Your task to perform on an android device: Open sound settings Image 0: 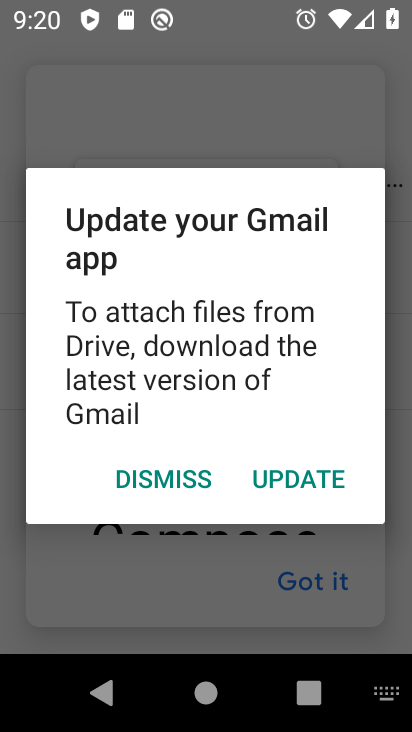
Step 0: click (149, 482)
Your task to perform on an android device: Open sound settings Image 1: 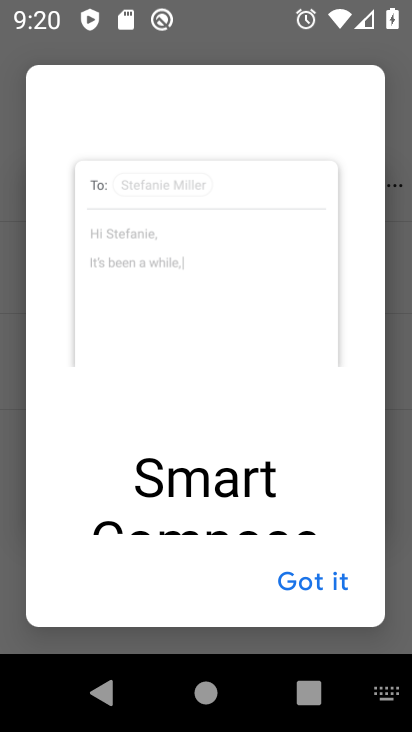
Step 1: press back button
Your task to perform on an android device: Open sound settings Image 2: 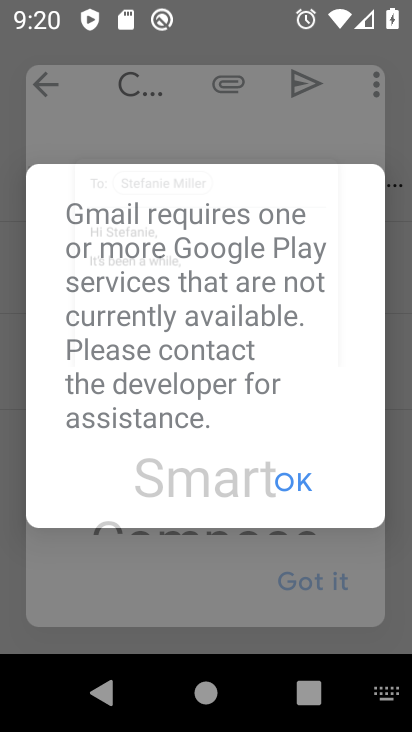
Step 2: press back button
Your task to perform on an android device: Open sound settings Image 3: 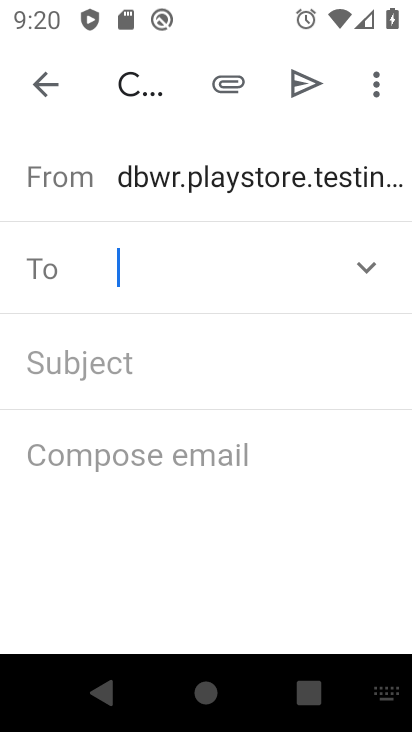
Step 3: press back button
Your task to perform on an android device: Open sound settings Image 4: 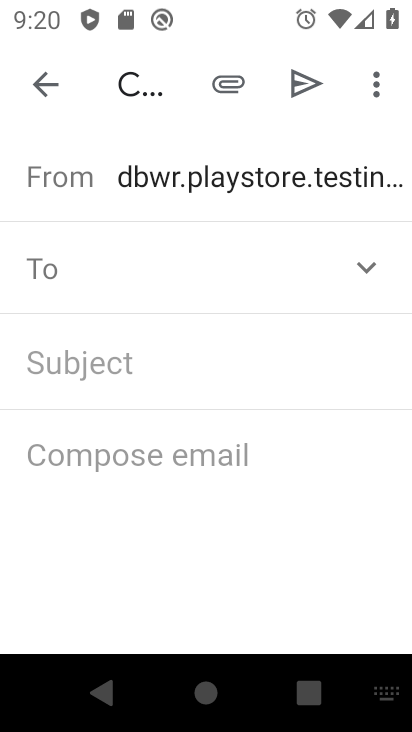
Step 4: press back button
Your task to perform on an android device: Open sound settings Image 5: 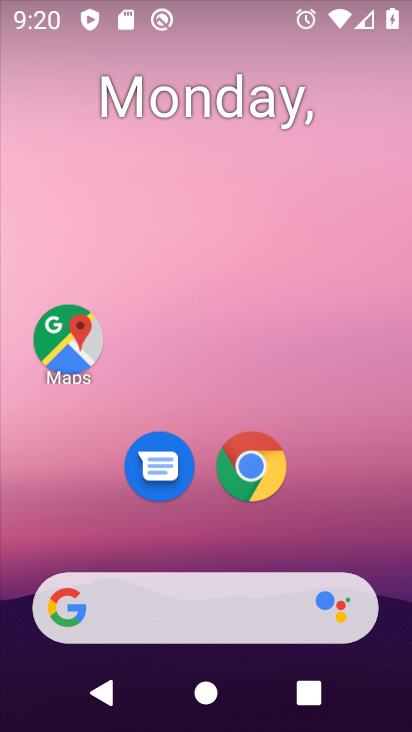
Step 5: drag from (348, 534) to (224, 175)
Your task to perform on an android device: Open sound settings Image 6: 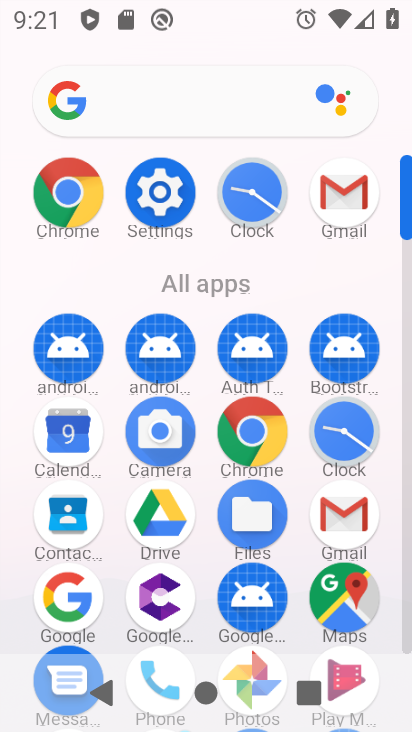
Step 6: click (160, 190)
Your task to perform on an android device: Open sound settings Image 7: 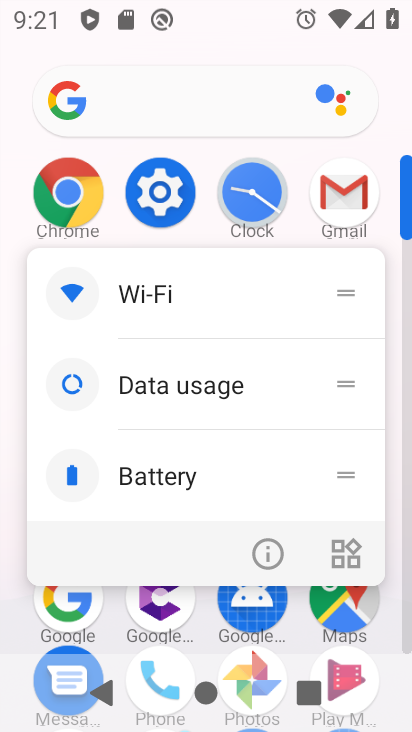
Step 7: click (162, 191)
Your task to perform on an android device: Open sound settings Image 8: 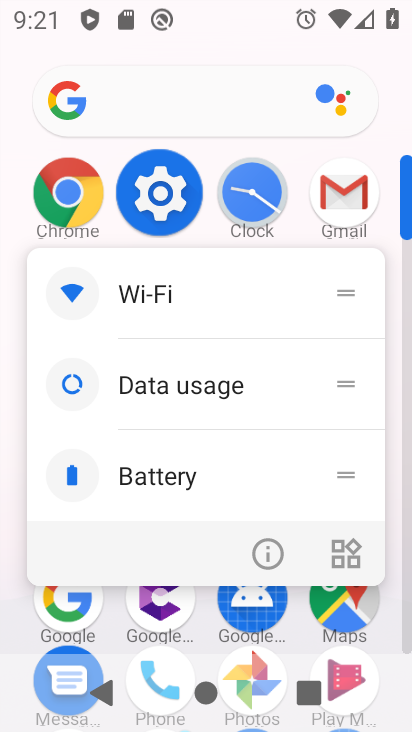
Step 8: click (164, 190)
Your task to perform on an android device: Open sound settings Image 9: 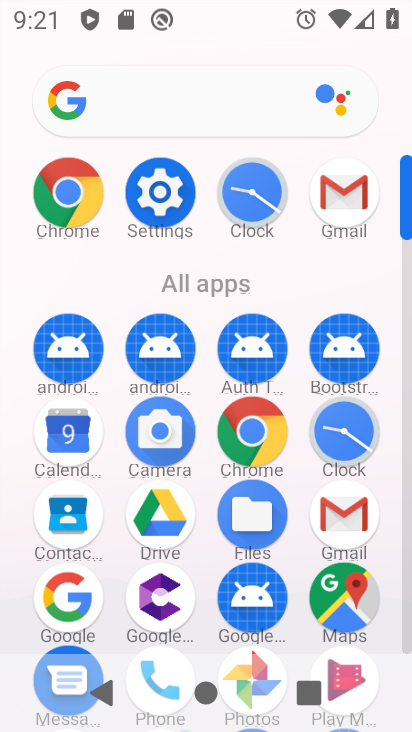
Step 9: click (167, 191)
Your task to perform on an android device: Open sound settings Image 10: 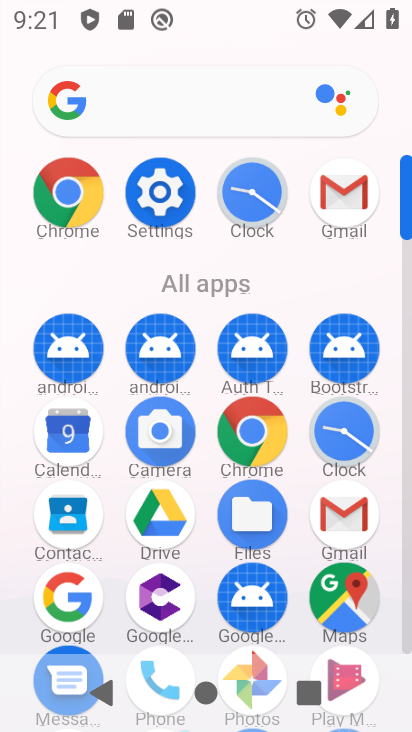
Step 10: click (167, 191)
Your task to perform on an android device: Open sound settings Image 11: 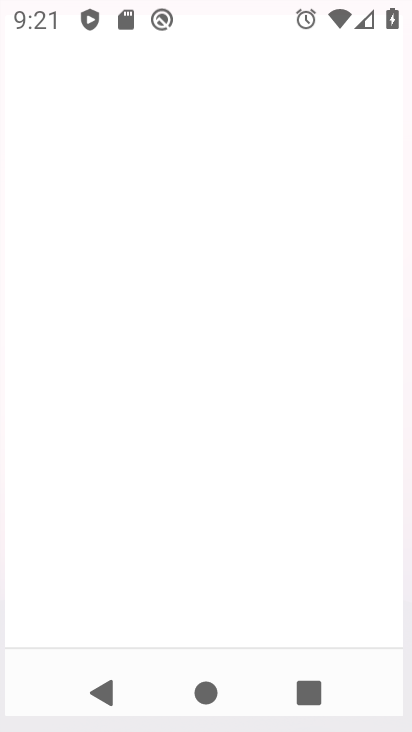
Step 11: click (168, 190)
Your task to perform on an android device: Open sound settings Image 12: 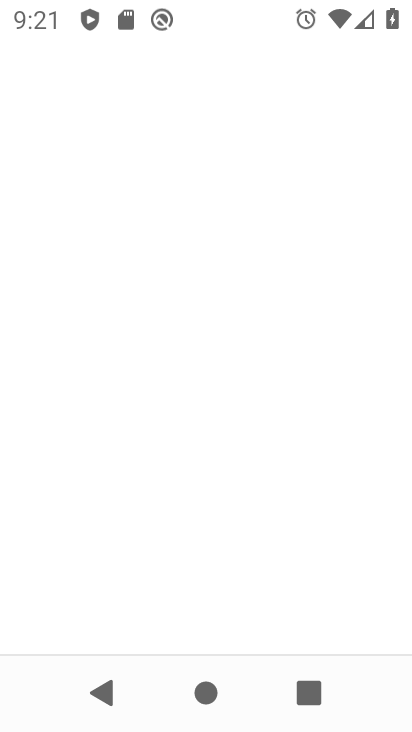
Step 12: click (168, 190)
Your task to perform on an android device: Open sound settings Image 13: 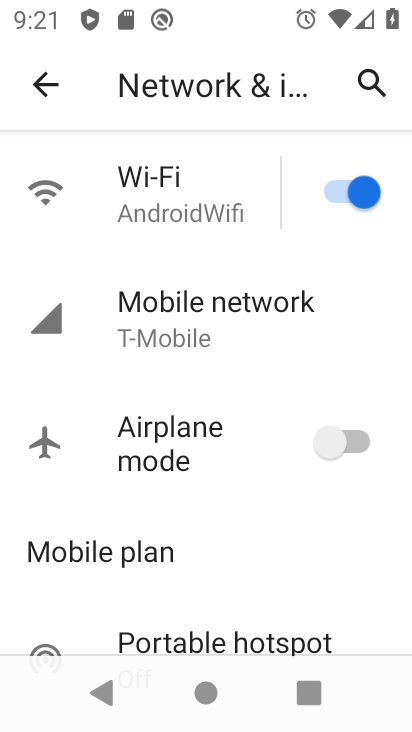
Step 13: click (37, 95)
Your task to perform on an android device: Open sound settings Image 14: 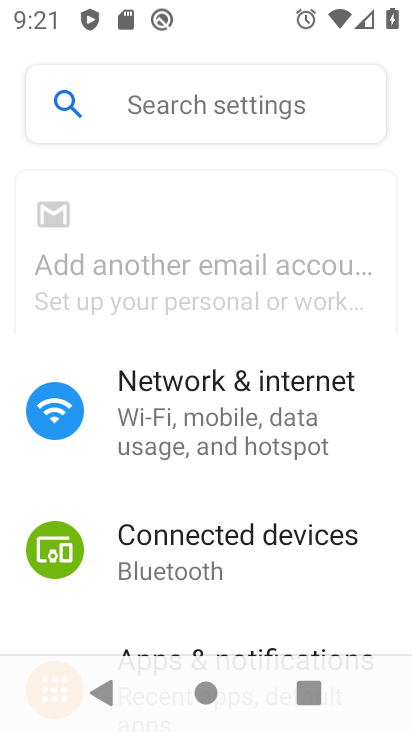
Step 14: click (37, 91)
Your task to perform on an android device: Open sound settings Image 15: 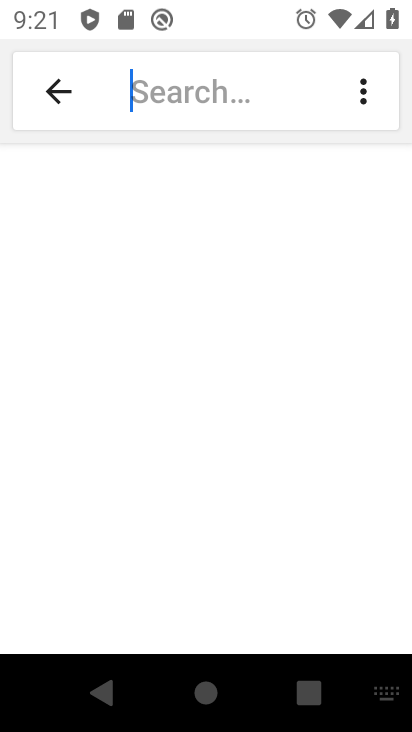
Step 15: drag from (210, 571) to (198, 274)
Your task to perform on an android device: Open sound settings Image 16: 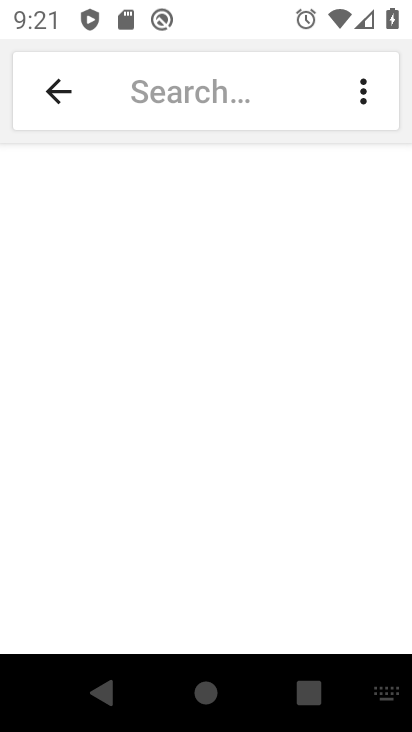
Step 16: drag from (166, 478) to (182, 309)
Your task to perform on an android device: Open sound settings Image 17: 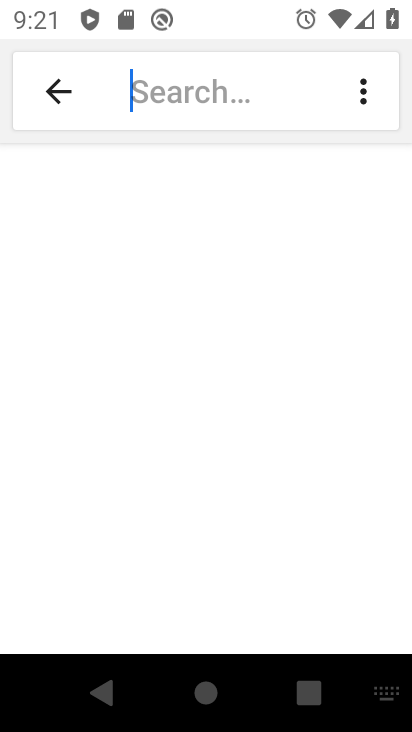
Step 17: click (51, 90)
Your task to perform on an android device: Open sound settings Image 18: 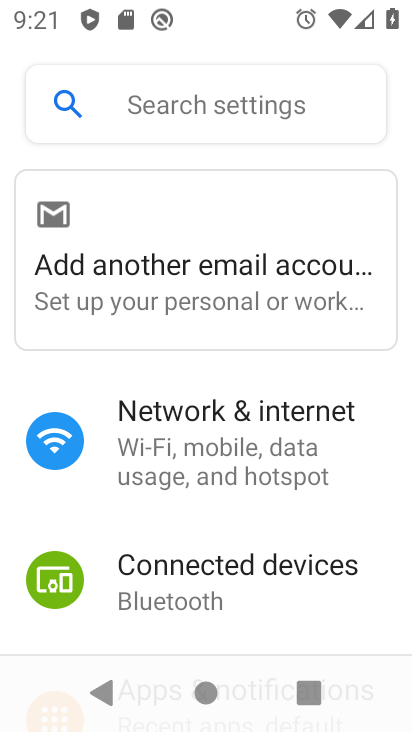
Step 18: drag from (192, 556) to (153, 276)
Your task to perform on an android device: Open sound settings Image 19: 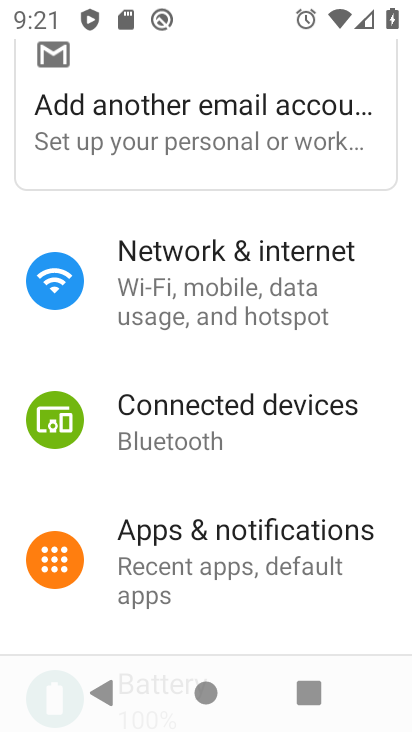
Step 19: drag from (212, 478) to (284, 306)
Your task to perform on an android device: Open sound settings Image 20: 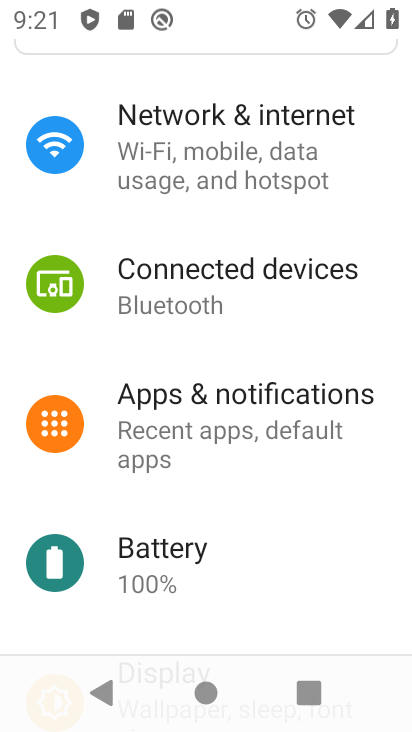
Step 20: drag from (261, 487) to (286, 222)
Your task to perform on an android device: Open sound settings Image 21: 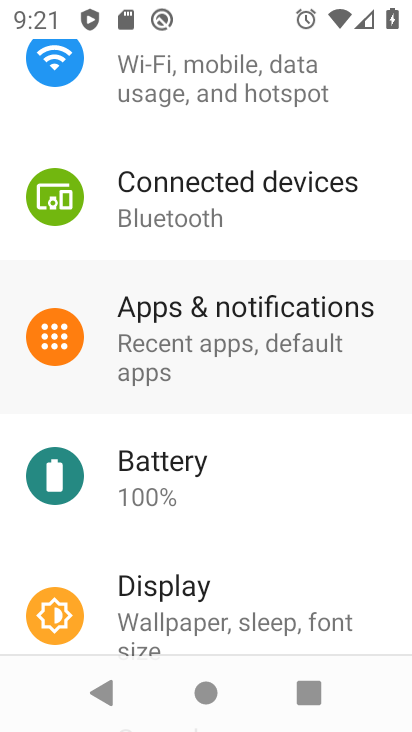
Step 21: drag from (313, 384) to (298, 155)
Your task to perform on an android device: Open sound settings Image 22: 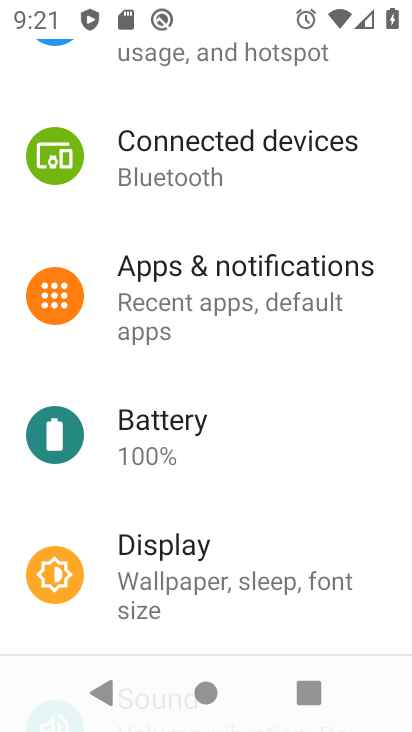
Step 22: drag from (189, 522) to (206, 178)
Your task to perform on an android device: Open sound settings Image 23: 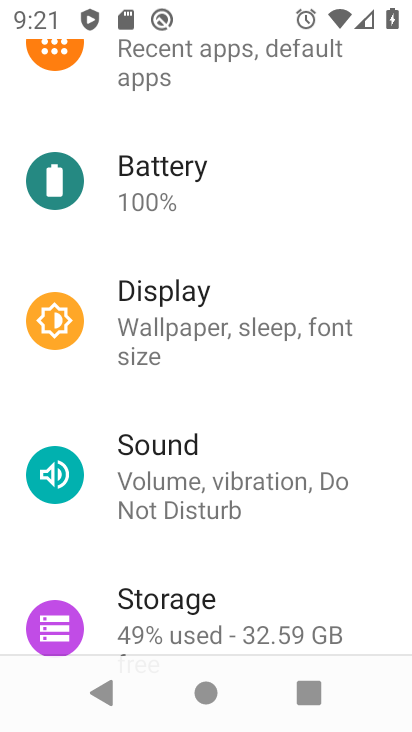
Step 23: drag from (214, 513) to (199, 245)
Your task to perform on an android device: Open sound settings Image 24: 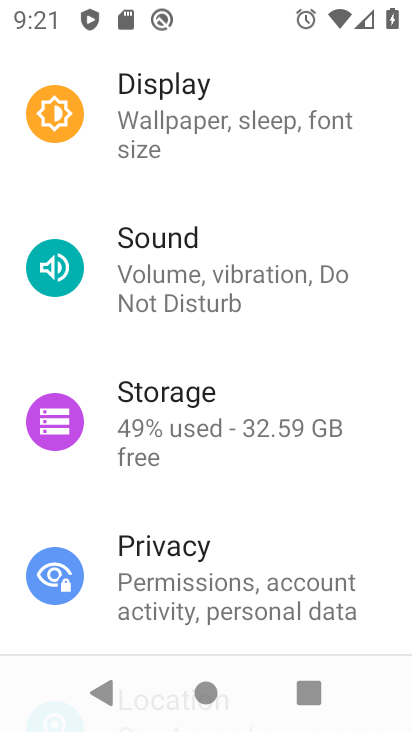
Step 24: click (178, 266)
Your task to perform on an android device: Open sound settings Image 25: 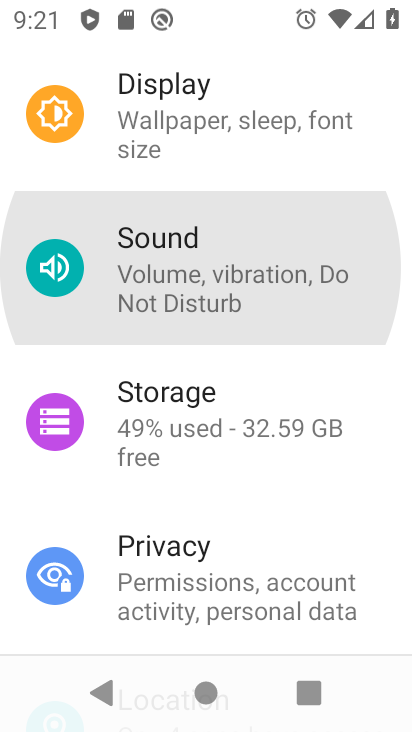
Step 25: click (178, 266)
Your task to perform on an android device: Open sound settings Image 26: 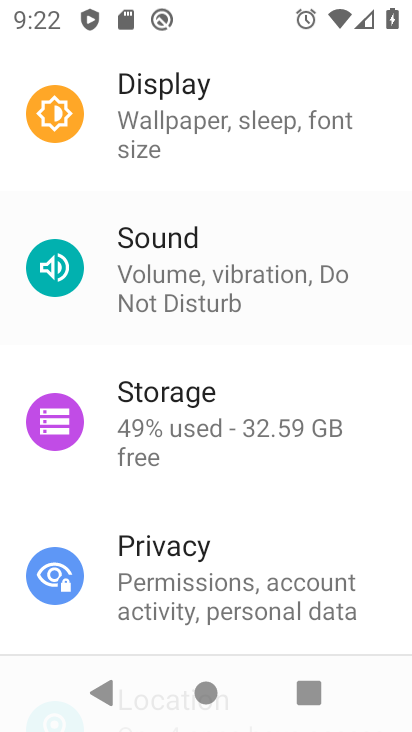
Step 26: click (178, 266)
Your task to perform on an android device: Open sound settings Image 27: 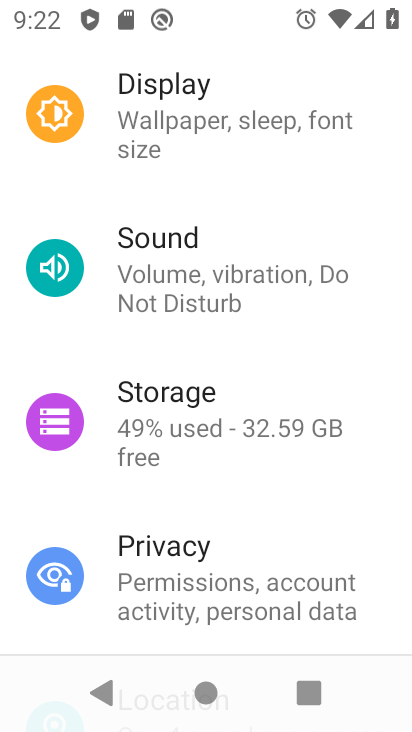
Step 27: click (179, 265)
Your task to perform on an android device: Open sound settings Image 28: 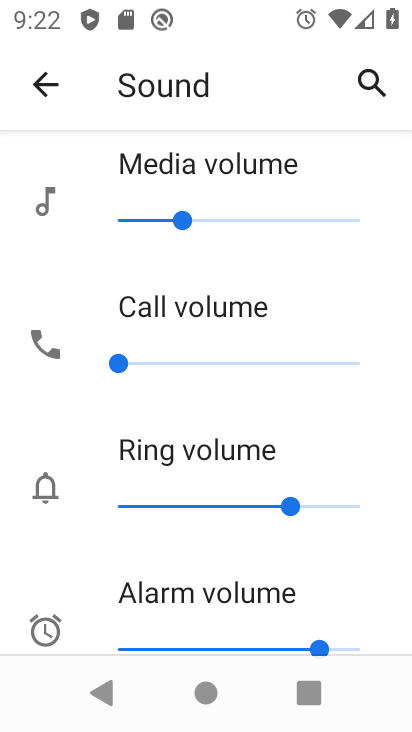
Step 28: task complete